Your task to perform on an android device: What's on the menu at IHOP? Image 0: 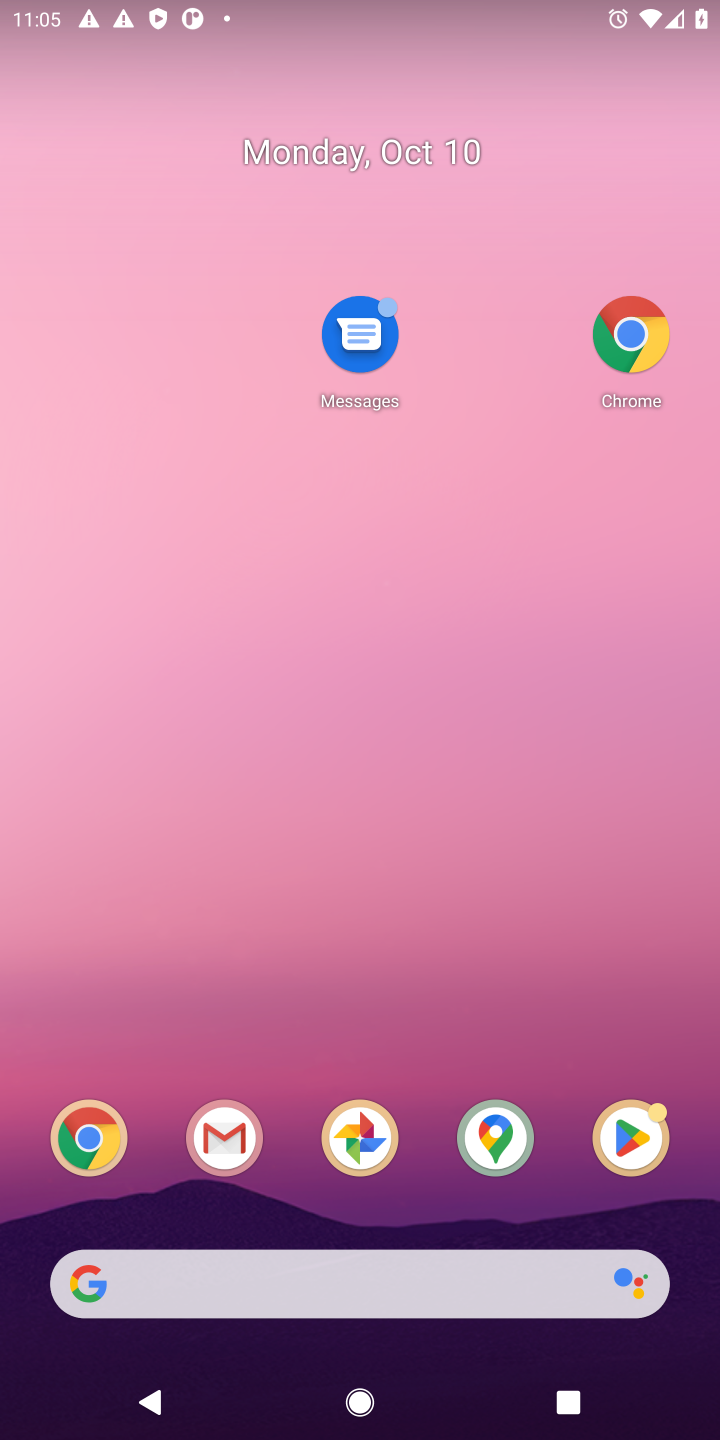
Step 0: click (647, 328)
Your task to perform on an android device: What's on the menu at IHOP? Image 1: 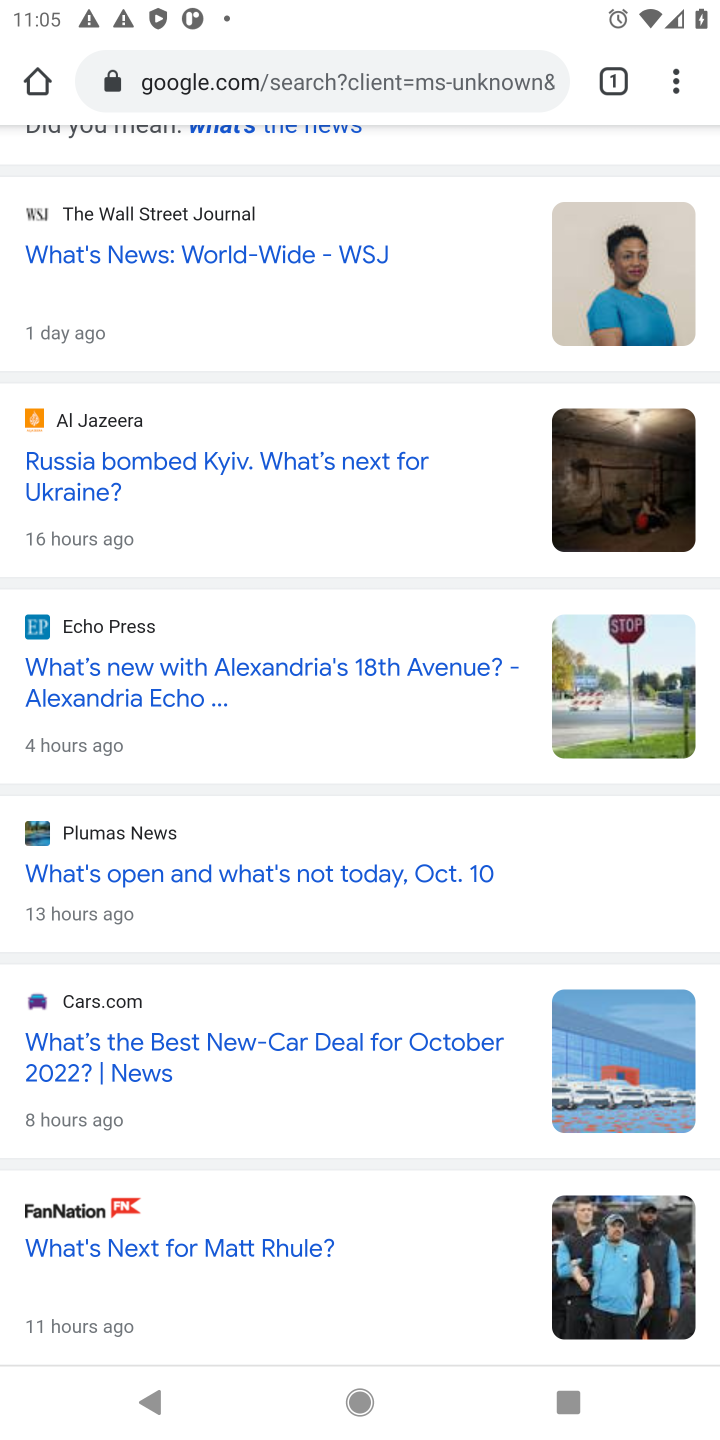
Step 1: click (375, 82)
Your task to perform on an android device: What's on the menu at IHOP? Image 2: 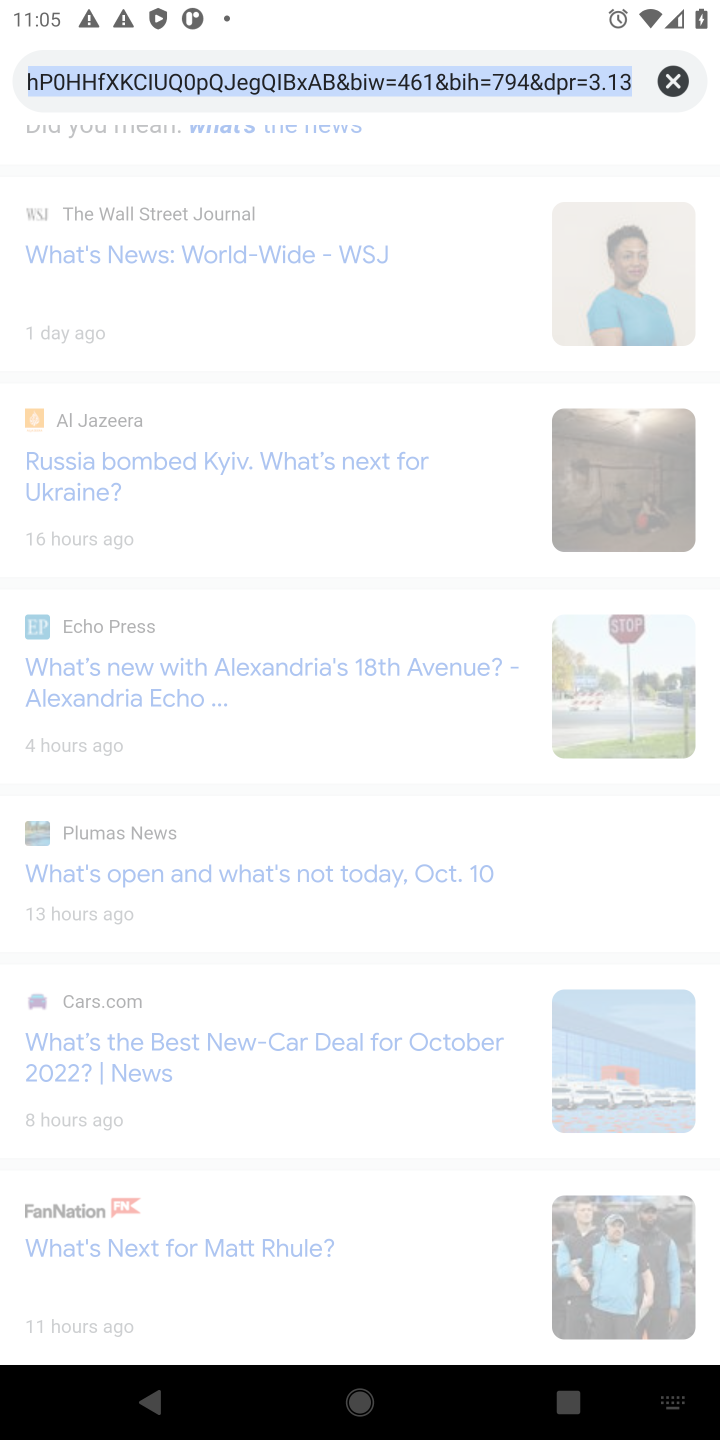
Step 2: type ""
Your task to perform on an android device: What's on the menu at IHOP? Image 3: 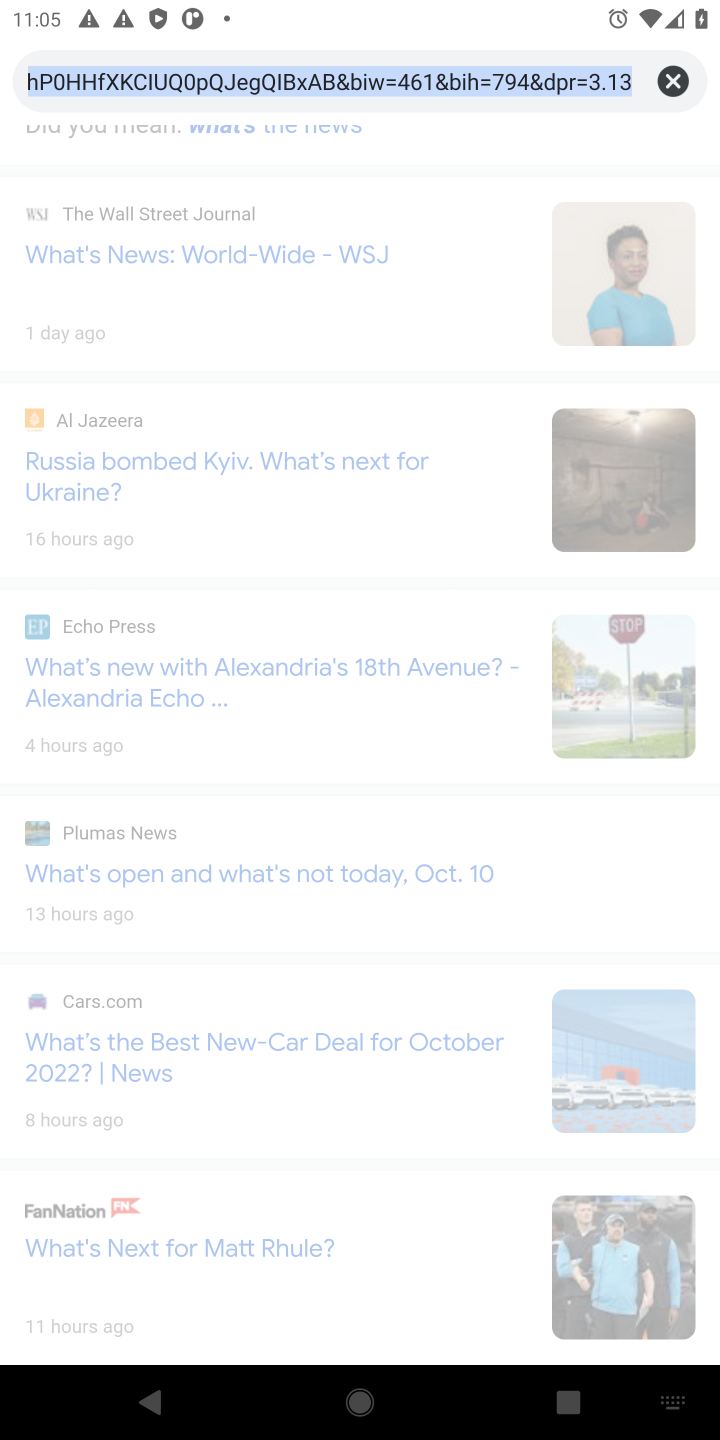
Step 3: type "ihop"
Your task to perform on an android device: What's on the menu at IHOP? Image 4: 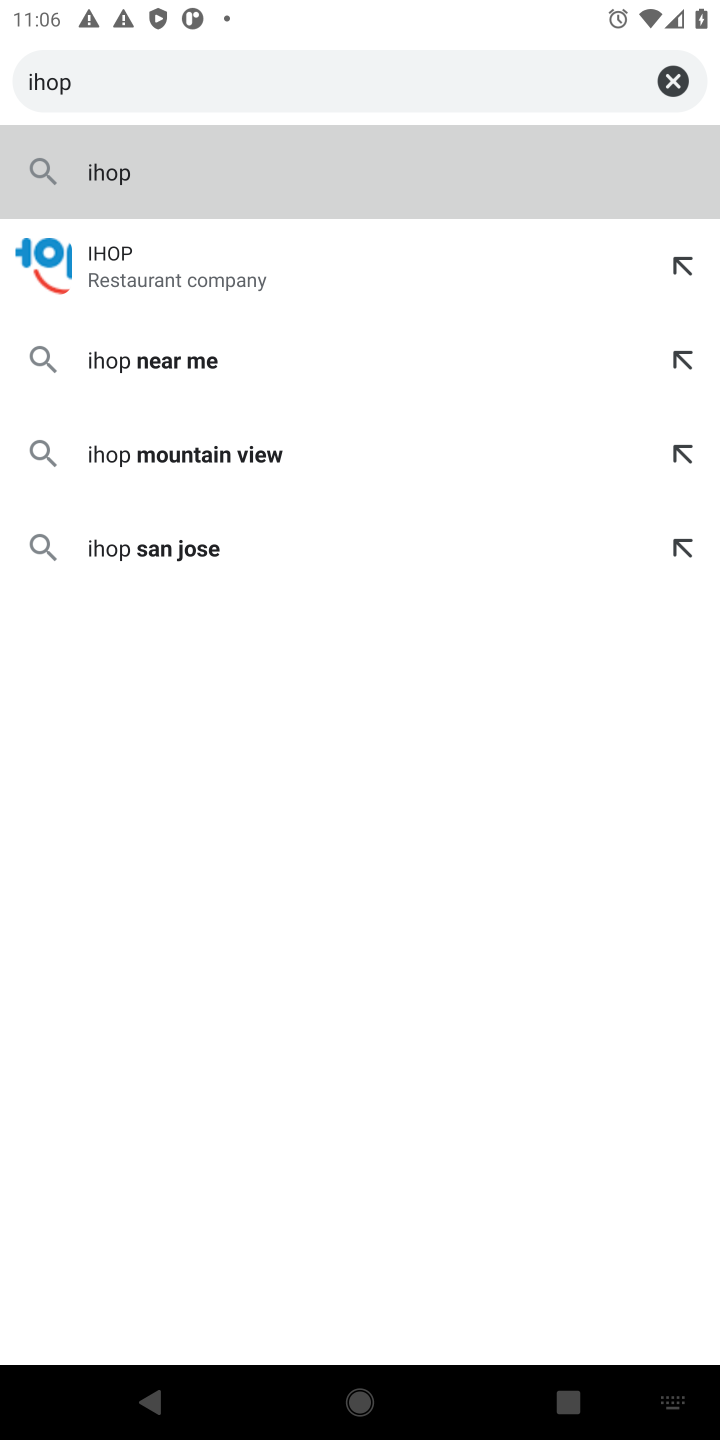
Step 4: press enter
Your task to perform on an android device: What's on the menu at IHOP? Image 5: 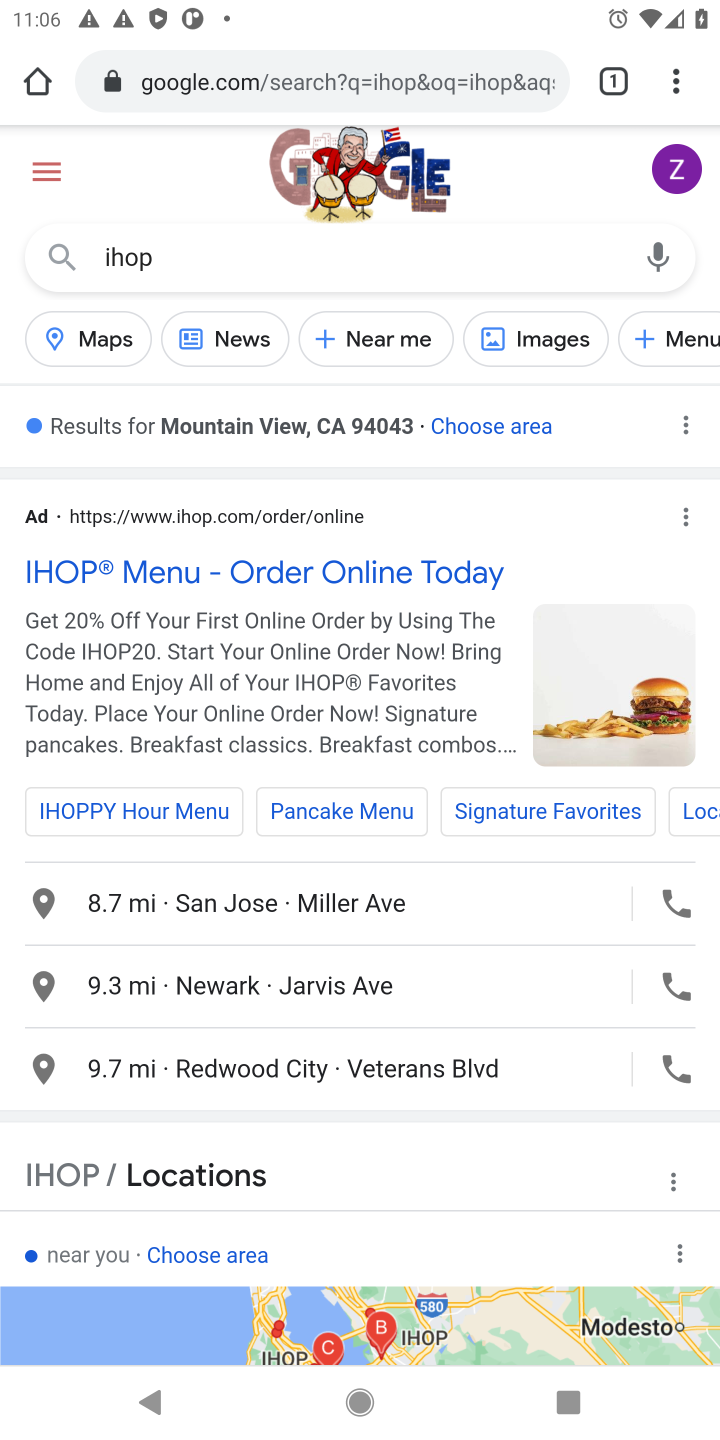
Step 5: click (273, 567)
Your task to perform on an android device: What's on the menu at IHOP? Image 6: 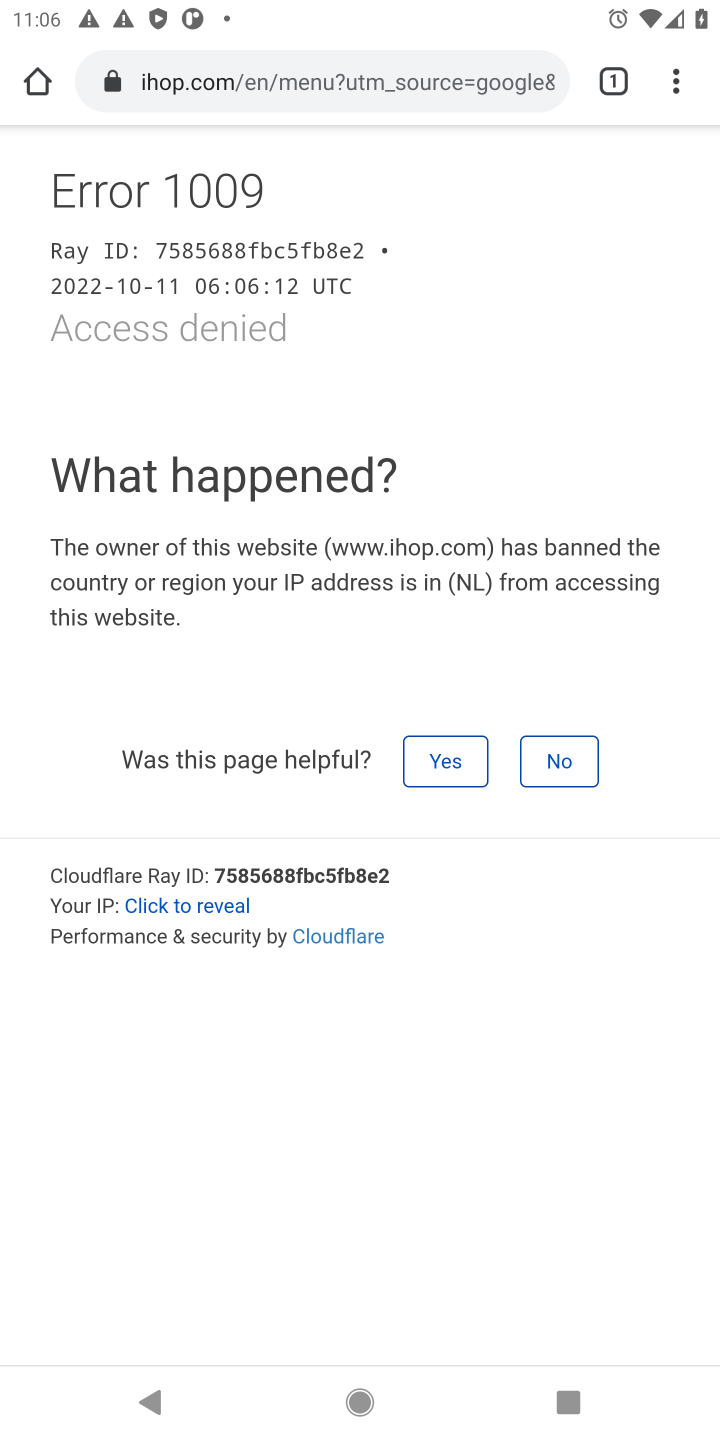
Step 6: task complete